Your task to perform on an android device: create a new album in the google photos Image 0: 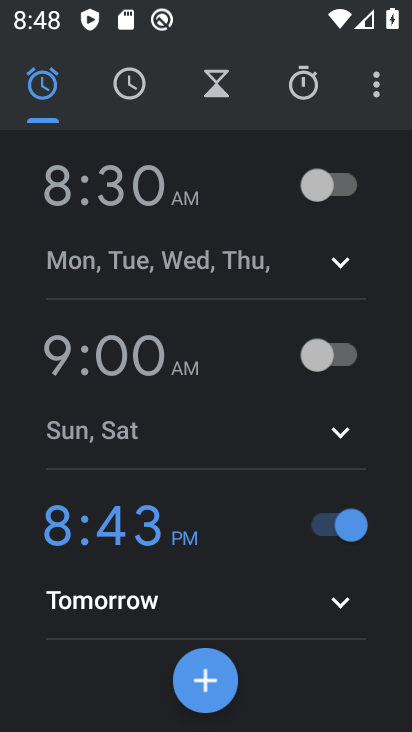
Step 0: press home button
Your task to perform on an android device: create a new album in the google photos Image 1: 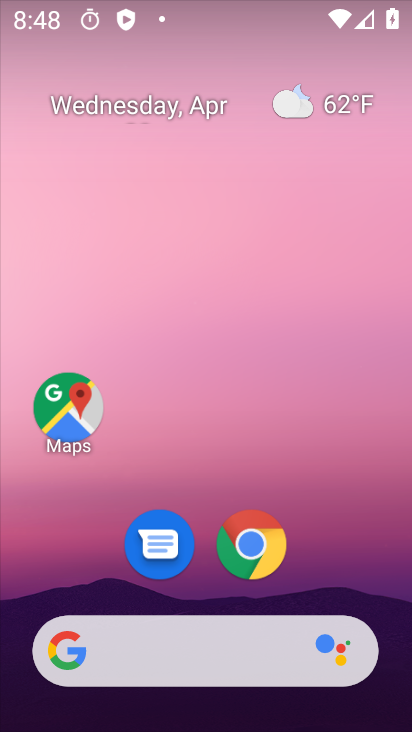
Step 1: drag from (378, 528) to (184, 223)
Your task to perform on an android device: create a new album in the google photos Image 2: 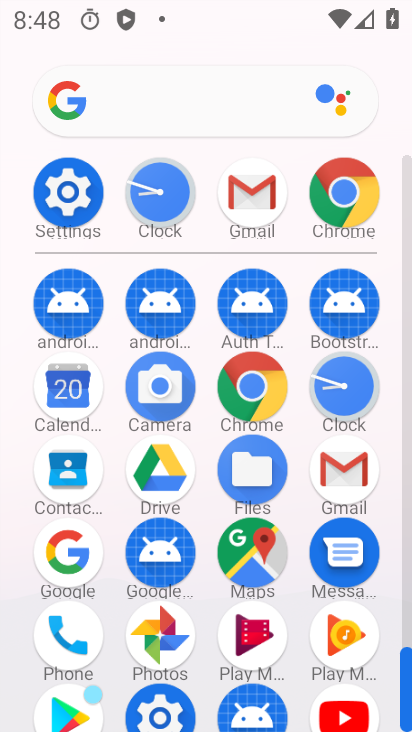
Step 2: click (170, 647)
Your task to perform on an android device: create a new album in the google photos Image 3: 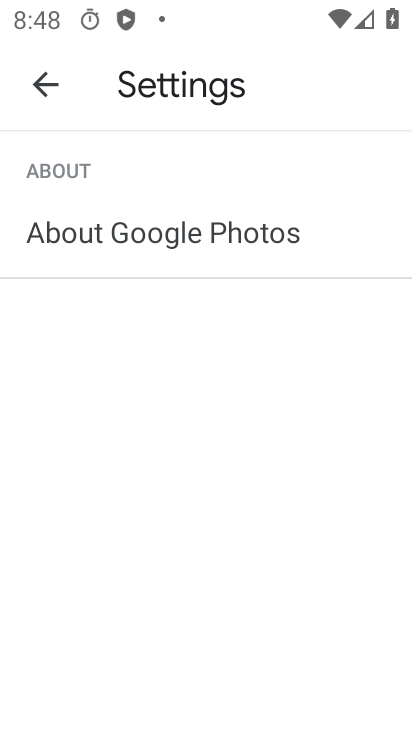
Step 3: click (51, 83)
Your task to perform on an android device: create a new album in the google photos Image 4: 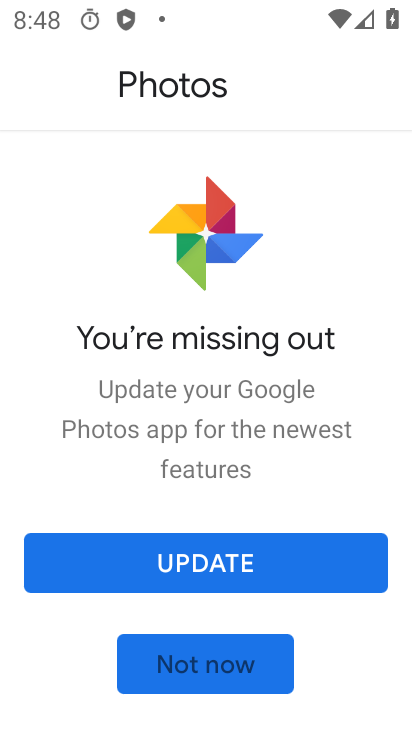
Step 4: click (208, 670)
Your task to perform on an android device: create a new album in the google photos Image 5: 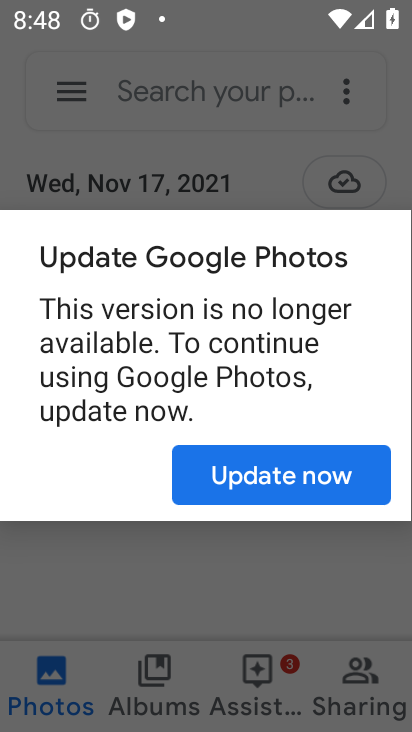
Step 5: click (291, 497)
Your task to perform on an android device: create a new album in the google photos Image 6: 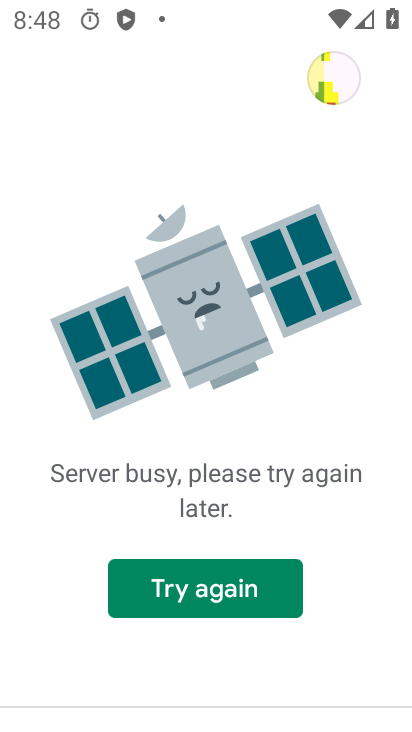
Step 6: press back button
Your task to perform on an android device: create a new album in the google photos Image 7: 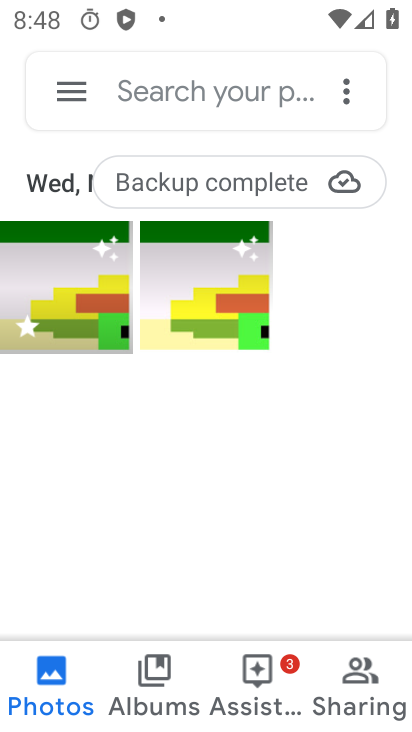
Step 7: click (143, 698)
Your task to perform on an android device: create a new album in the google photos Image 8: 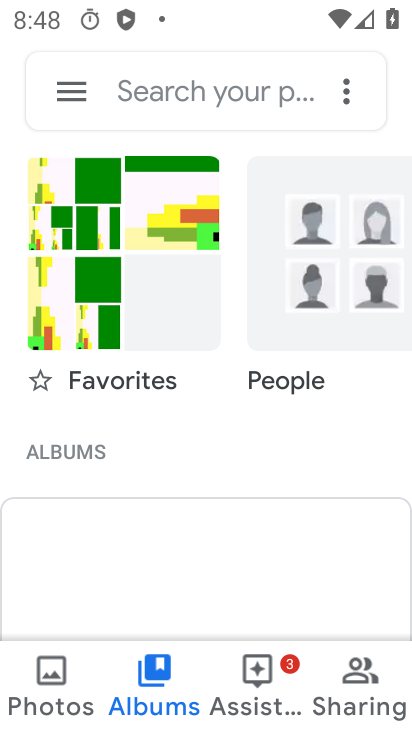
Step 8: drag from (195, 588) to (188, 300)
Your task to perform on an android device: create a new album in the google photos Image 9: 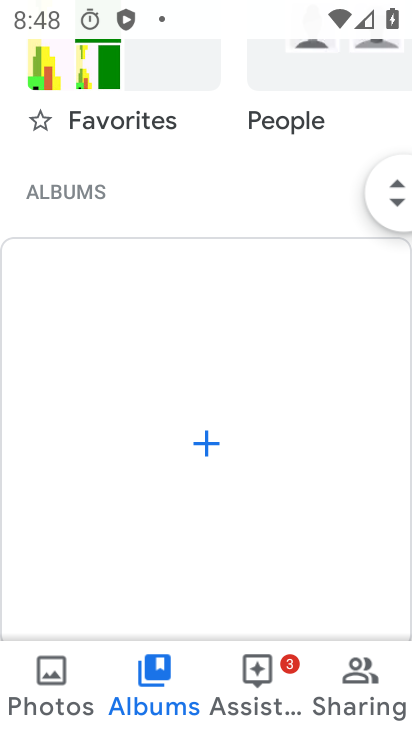
Step 9: click (209, 468)
Your task to perform on an android device: create a new album in the google photos Image 10: 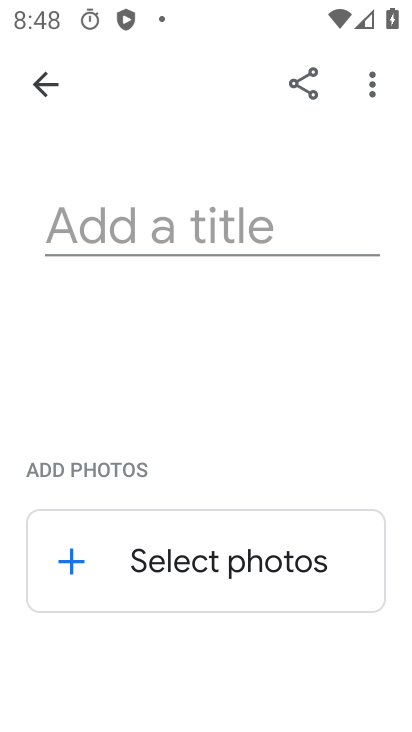
Step 10: click (196, 206)
Your task to perform on an android device: create a new album in the google photos Image 11: 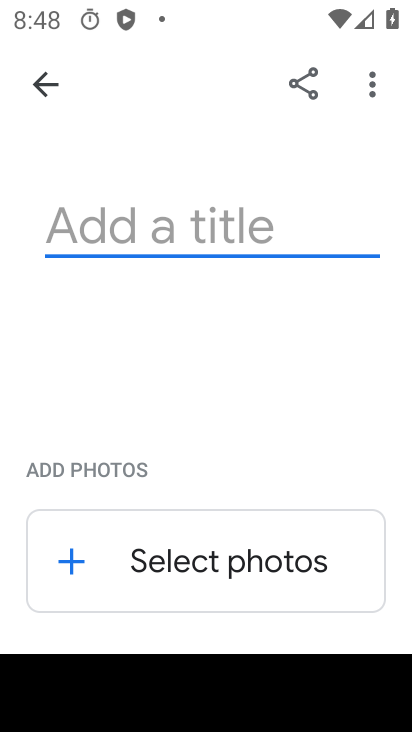
Step 11: type "pria"
Your task to perform on an android device: create a new album in the google photos Image 12: 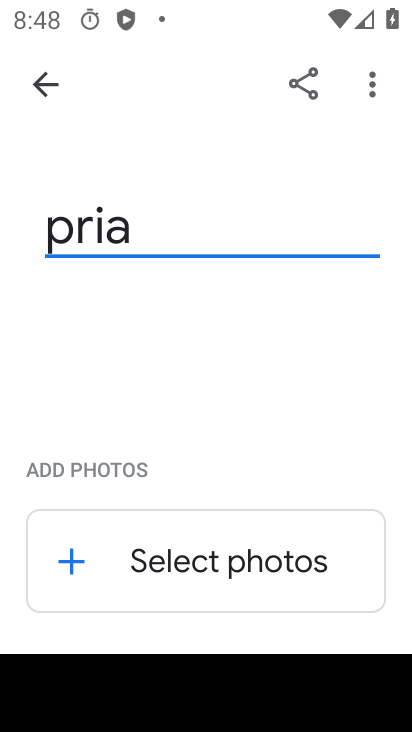
Step 12: click (180, 575)
Your task to perform on an android device: create a new album in the google photos Image 13: 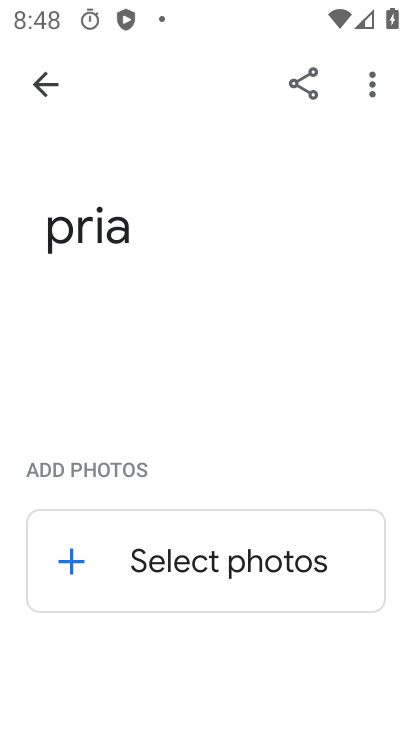
Step 13: click (195, 559)
Your task to perform on an android device: create a new album in the google photos Image 14: 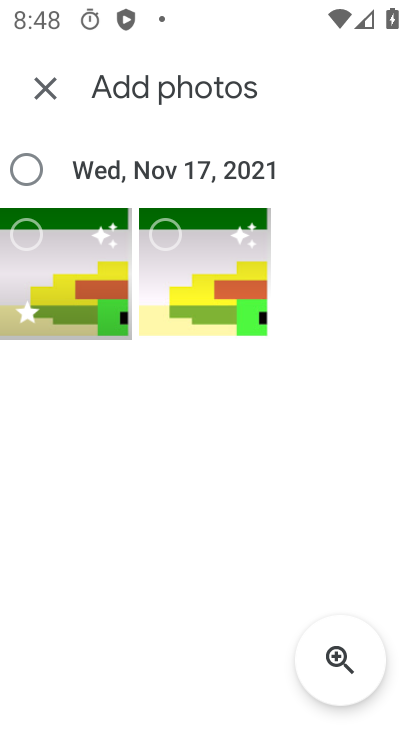
Step 14: click (23, 175)
Your task to perform on an android device: create a new album in the google photos Image 15: 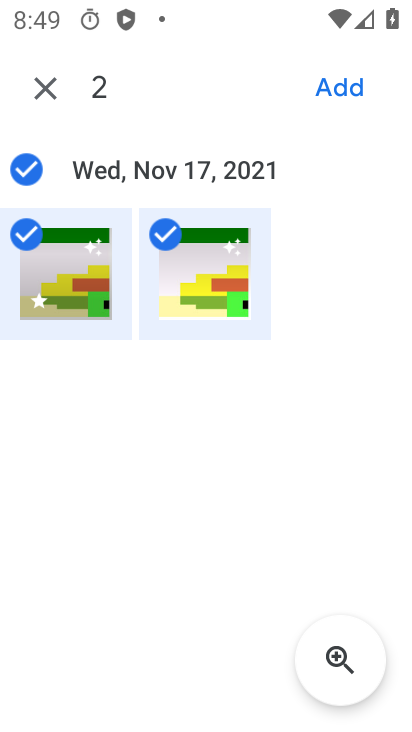
Step 15: click (345, 91)
Your task to perform on an android device: create a new album in the google photos Image 16: 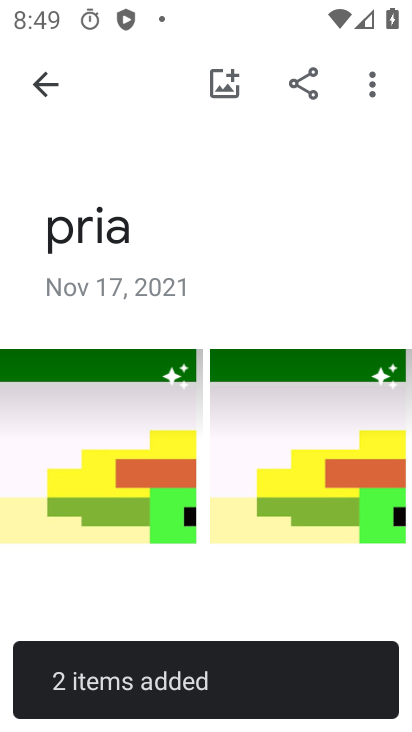
Step 16: task complete